Your task to perform on an android device: turn on javascript in the chrome app Image 0: 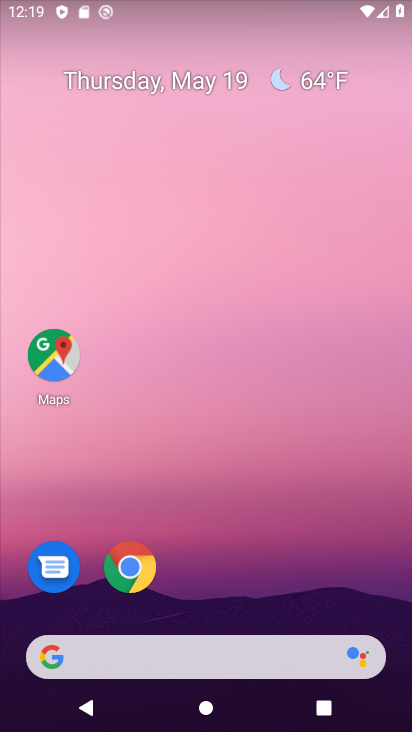
Step 0: click (124, 585)
Your task to perform on an android device: turn on javascript in the chrome app Image 1: 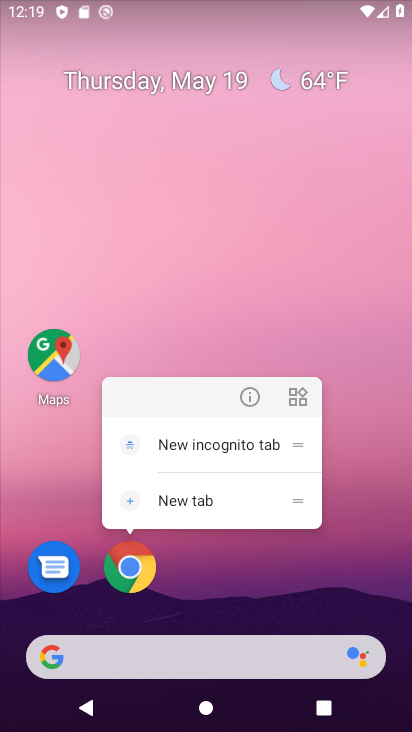
Step 1: click (124, 585)
Your task to perform on an android device: turn on javascript in the chrome app Image 2: 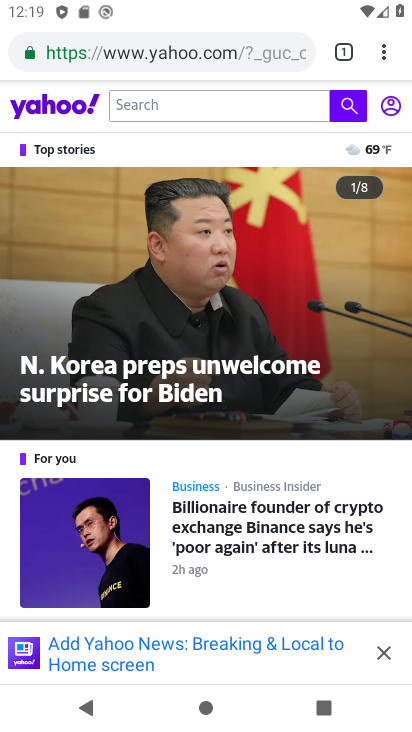
Step 2: drag from (384, 52) to (260, 612)
Your task to perform on an android device: turn on javascript in the chrome app Image 3: 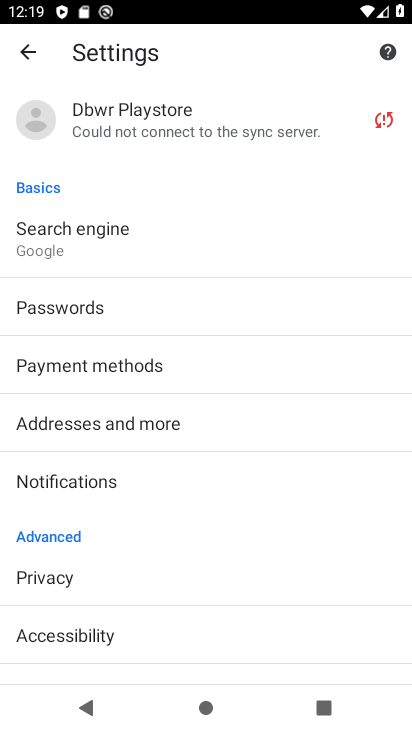
Step 3: drag from (153, 620) to (167, 260)
Your task to perform on an android device: turn on javascript in the chrome app Image 4: 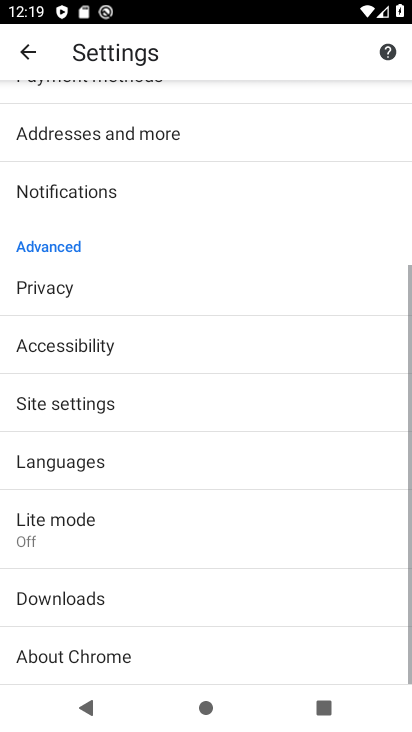
Step 4: drag from (168, 648) to (179, 263)
Your task to perform on an android device: turn on javascript in the chrome app Image 5: 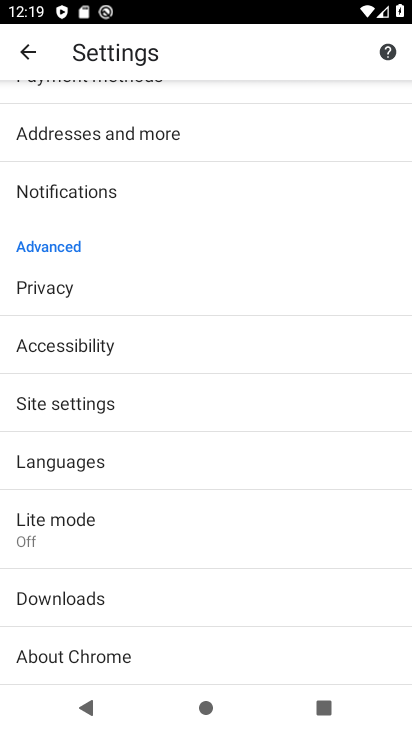
Step 5: drag from (134, 522) to (134, 305)
Your task to perform on an android device: turn on javascript in the chrome app Image 6: 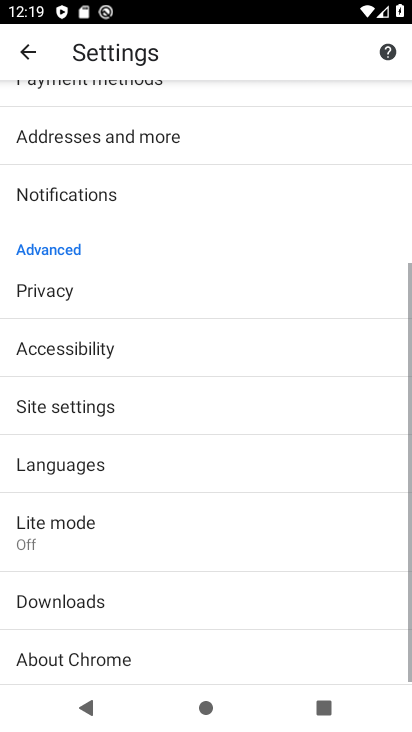
Step 6: click (114, 404)
Your task to perform on an android device: turn on javascript in the chrome app Image 7: 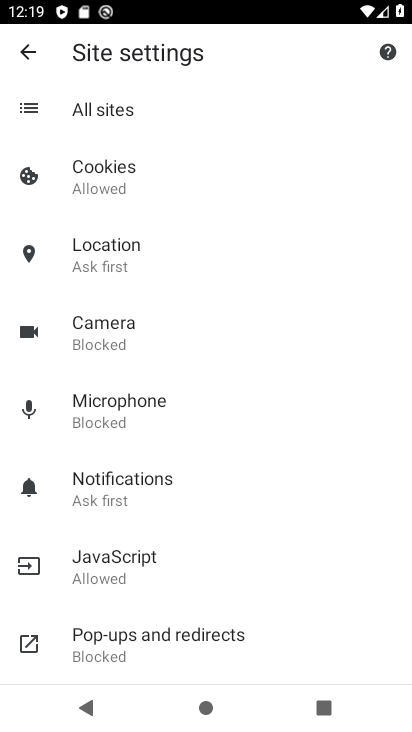
Step 7: click (140, 568)
Your task to perform on an android device: turn on javascript in the chrome app Image 8: 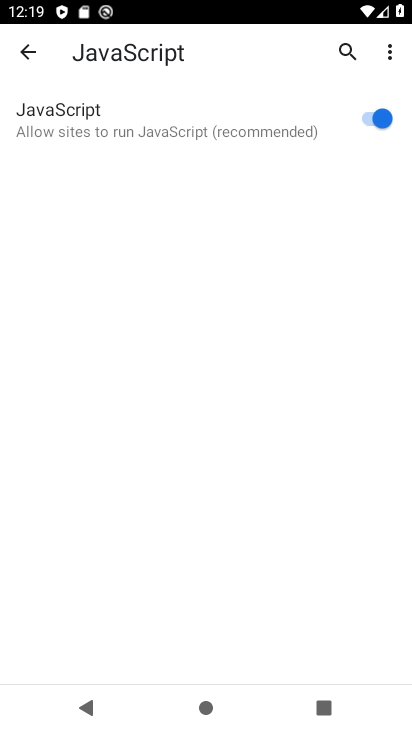
Step 8: task complete